Your task to perform on an android device: Open Chrome and go to settings Image 0: 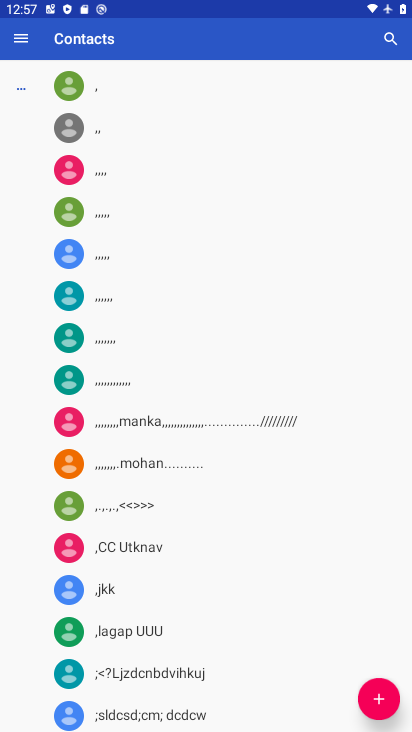
Step 0: press home button
Your task to perform on an android device: Open Chrome and go to settings Image 1: 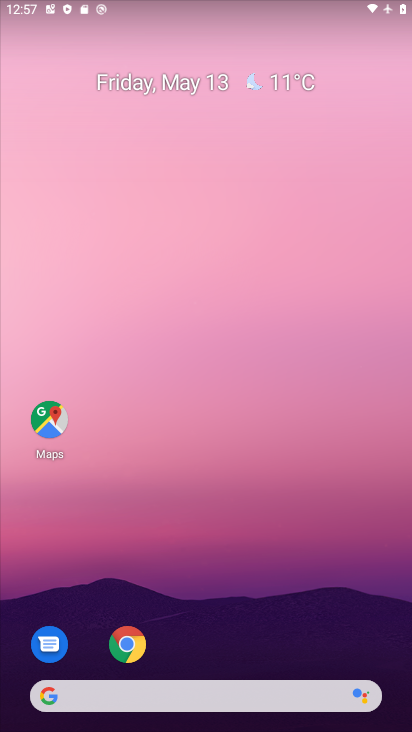
Step 1: click (128, 643)
Your task to perform on an android device: Open Chrome and go to settings Image 2: 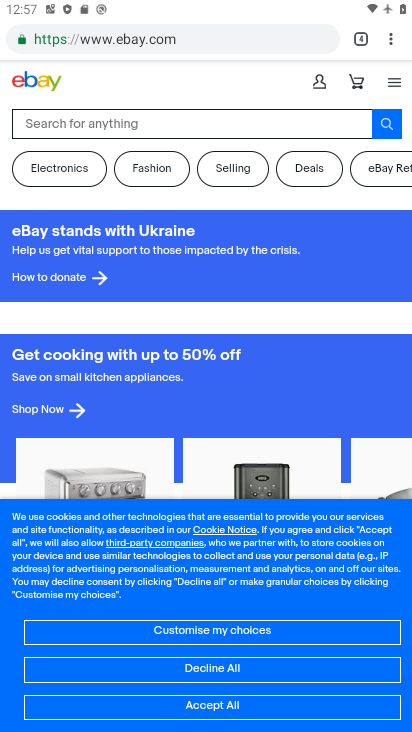
Step 2: click (391, 44)
Your task to perform on an android device: Open Chrome and go to settings Image 3: 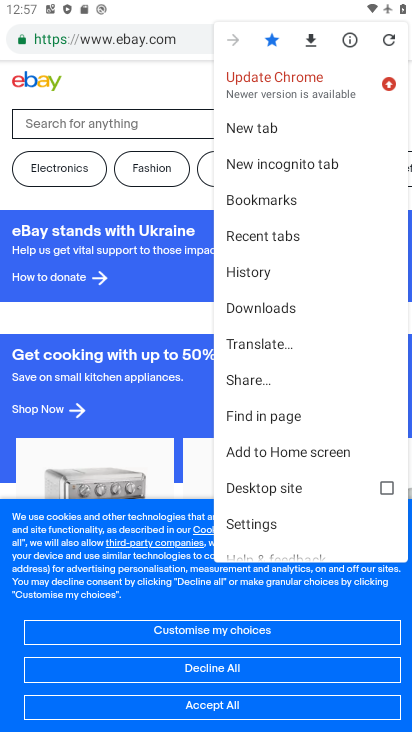
Step 3: click (255, 520)
Your task to perform on an android device: Open Chrome and go to settings Image 4: 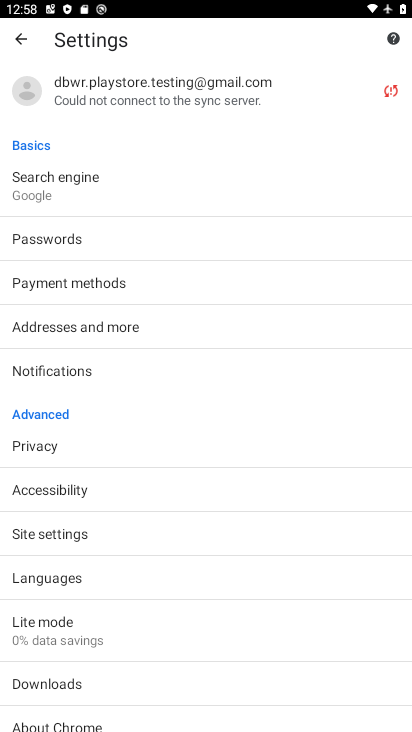
Step 4: task complete